Your task to perform on an android device: visit the assistant section in the google photos Image 0: 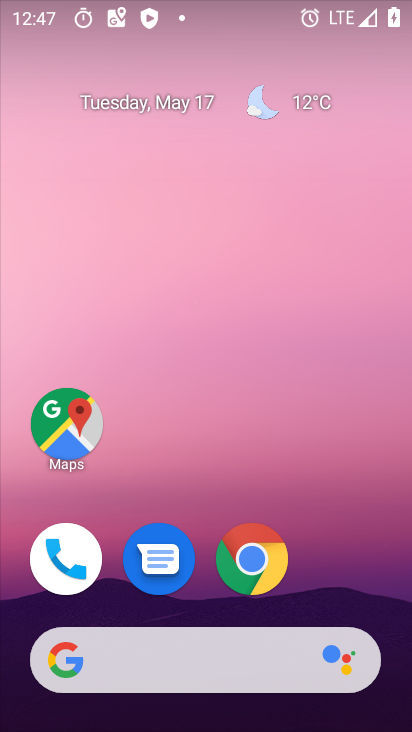
Step 0: drag from (370, 559) to (299, 186)
Your task to perform on an android device: visit the assistant section in the google photos Image 1: 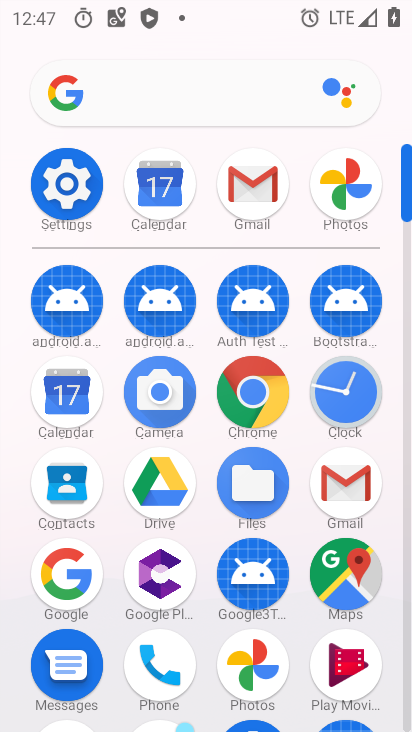
Step 1: click (255, 661)
Your task to perform on an android device: visit the assistant section in the google photos Image 2: 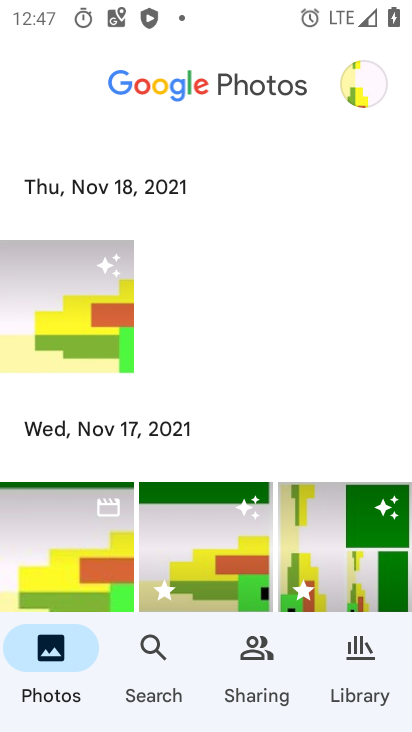
Step 2: click (358, 664)
Your task to perform on an android device: visit the assistant section in the google photos Image 3: 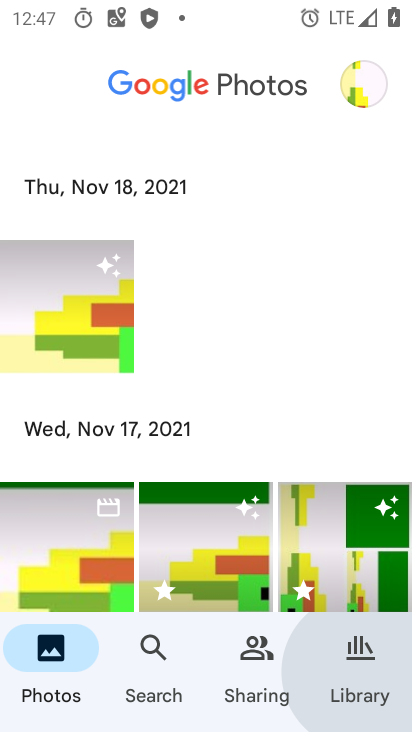
Step 3: click (352, 643)
Your task to perform on an android device: visit the assistant section in the google photos Image 4: 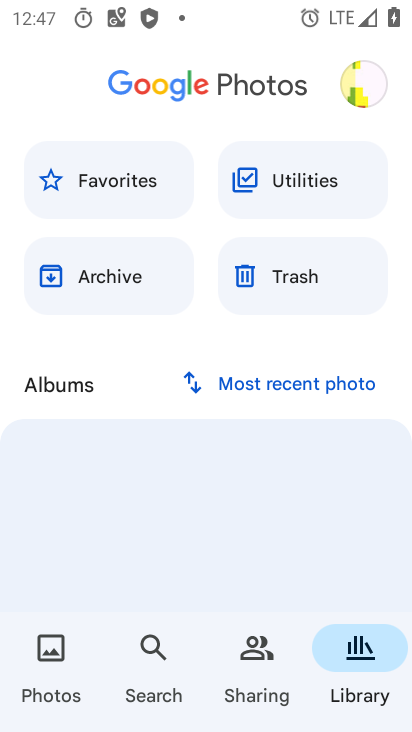
Step 4: task complete